Your task to perform on an android device: Open sound settings Image 0: 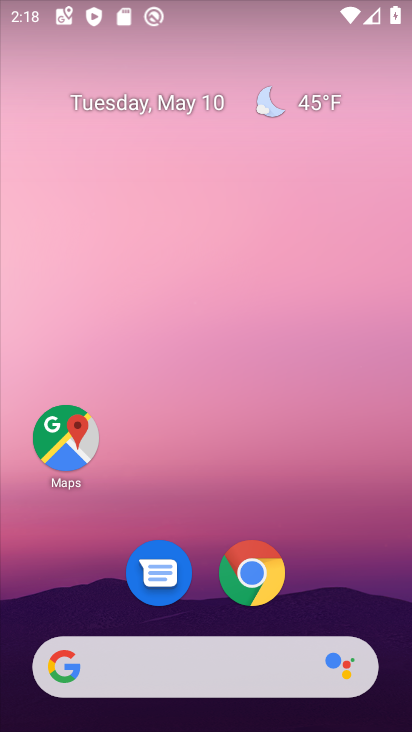
Step 0: drag from (172, 611) to (198, 240)
Your task to perform on an android device: Open sound settings Image 1: 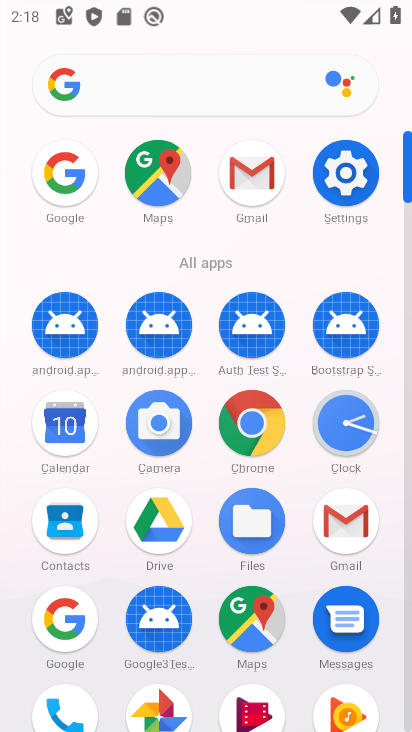
Step 1: click (336, 166)
Your task to perform on an android device: Open sound settings Image 2: 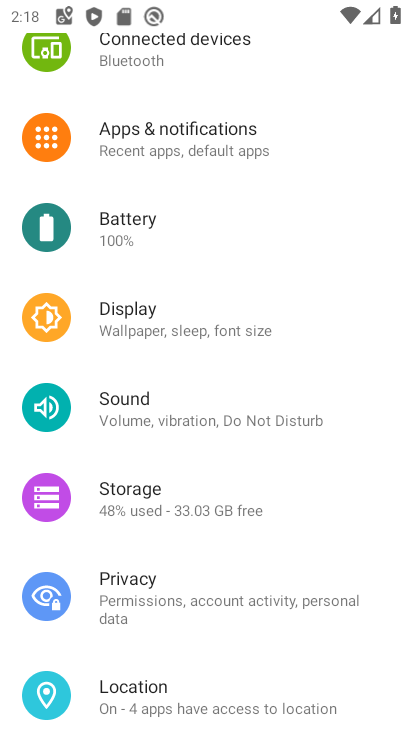
Step 2: click (147, 389)
Your task to perform on an android device: Open sound settings Image 3: 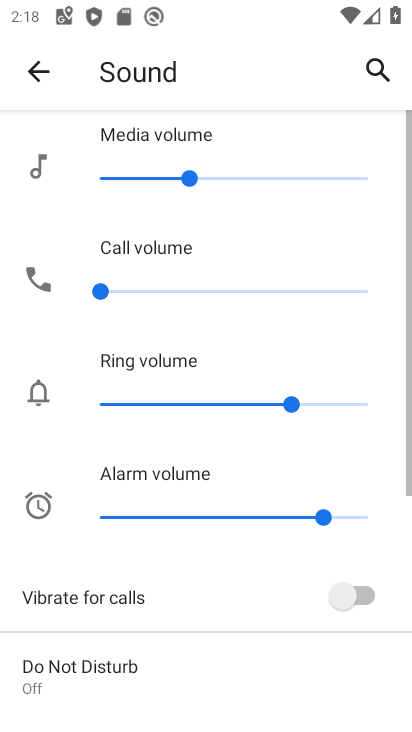
Step 3: task complete